Your task to perform on an android device: turn notification dots off Image 0: 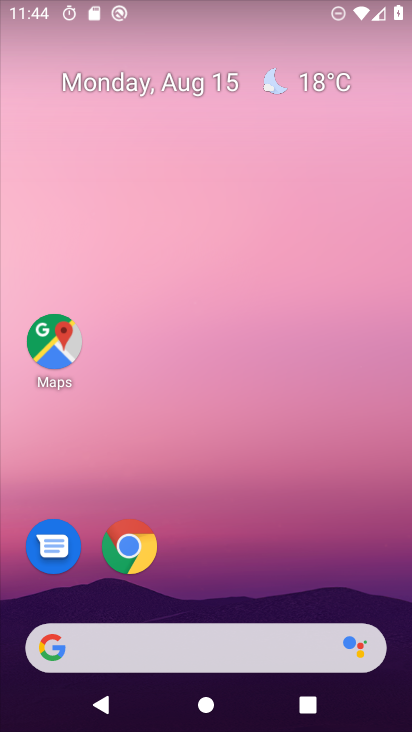
Step 0: drag from (225, 612) to (222, 129)
Your task to perform on an android device: turn notification dots off Image 1: 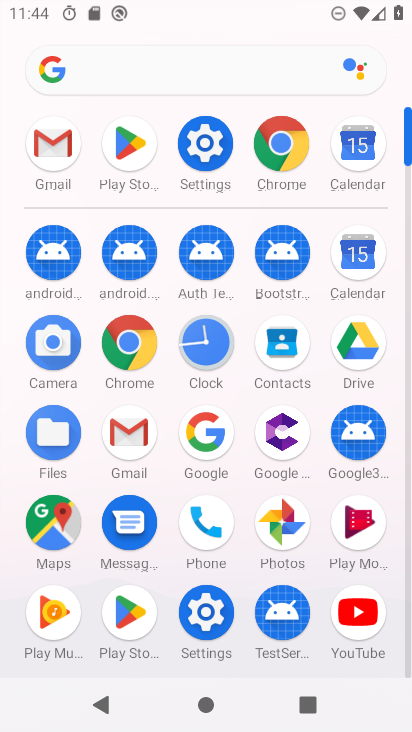
Step 1: click (208, 140)
Your task to perform on an android device: turn notification dots off Image 2: 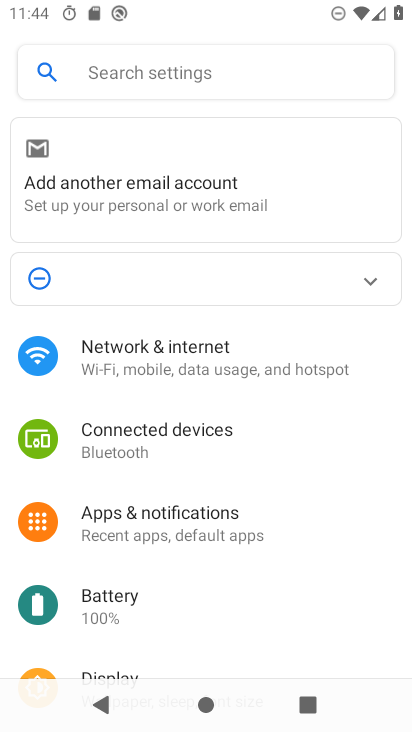
Step 2: click (161, 528)
Your task to perform on an android device: turn notification dots off Image 3: 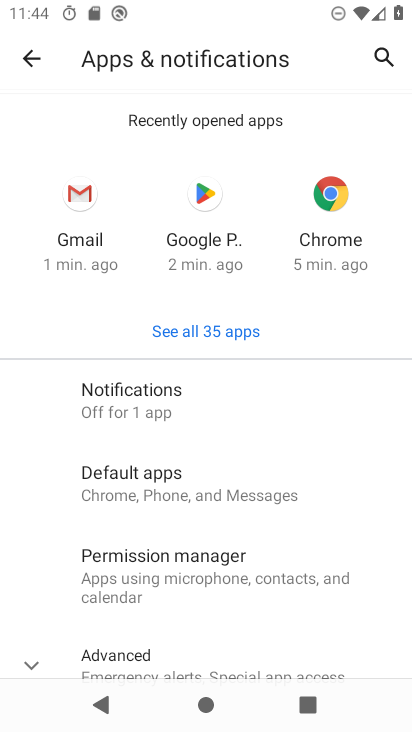
Step 3: click (126, 395)
Your task to perform on an android device: turn notification dots off Image 4: 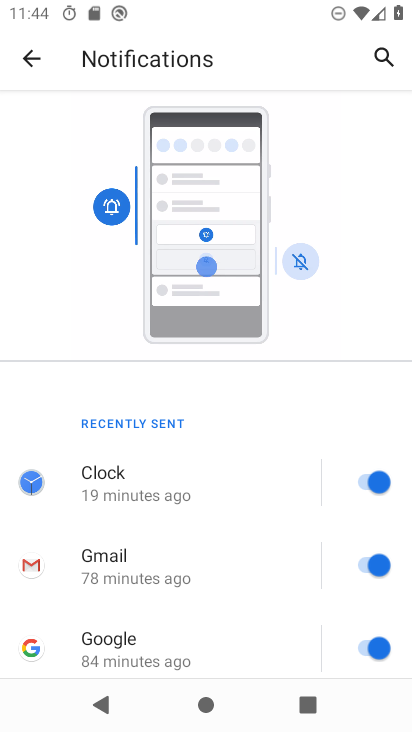
Step 4: drag from (161, 644) to (172, 352)
Your task to perform on an android device: turn notification dots off Image 5: 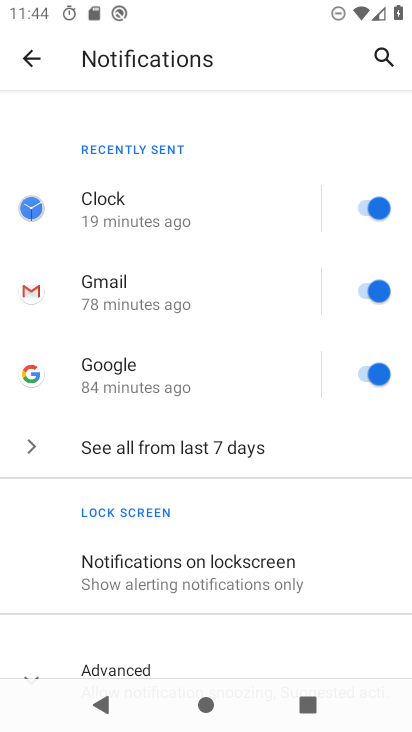
Step 5: drag from (195, 620) to (193, 103)
Your task to perform on an android device: turn notification dots off Image 6: 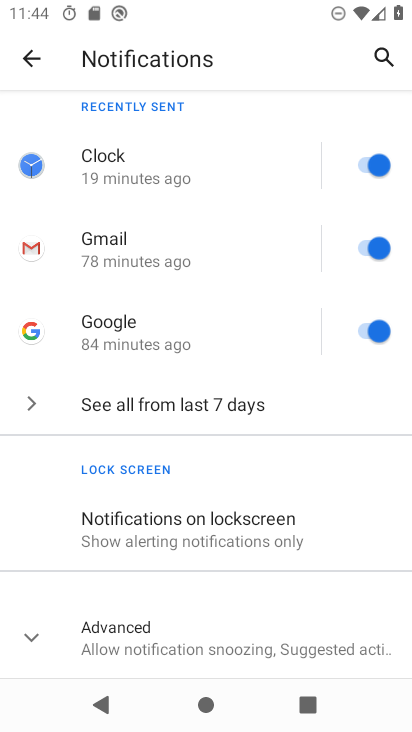
Step 6: click (177, 648)
Your task to perform on an android device: turn notification dots off Image 7: 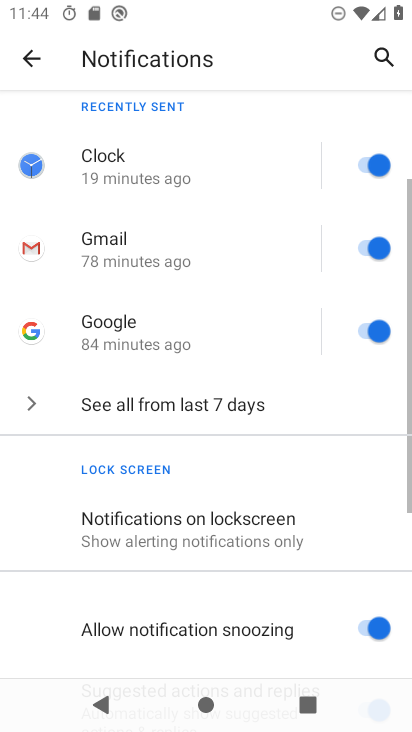
Step 7: task complete